Your task to perform on an android device: turn on notifications settings in the gmail app Image 0: 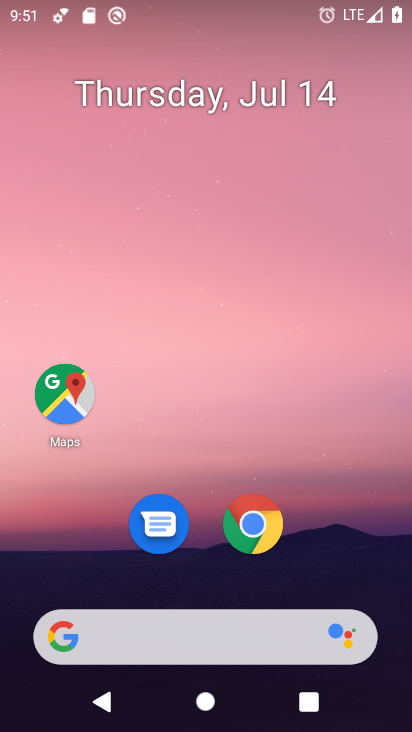
Step 0: drag from (310, 532) to (301, 7)
Your task to perform on an android device: turn on notifications settings in the gmail app Image 1: 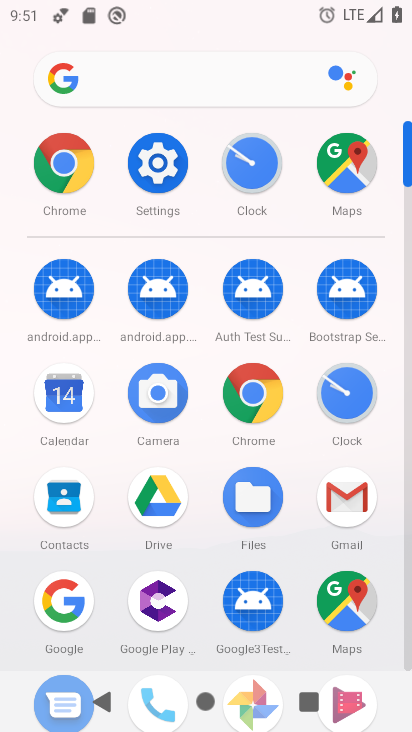
Step 1: click (351, 487)
Your task to perform on an android device: turn on notifications settings in the gmail app Image 2: 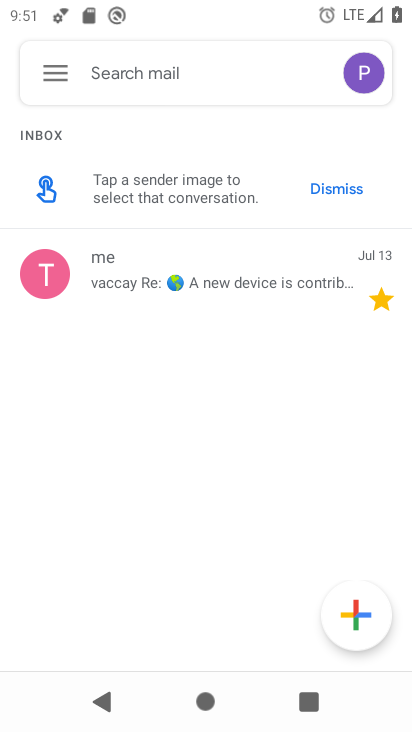
Step 2: click (47, 70)
Your task to perform on an android device: turn on notifications settings in the gmail app Image 3: 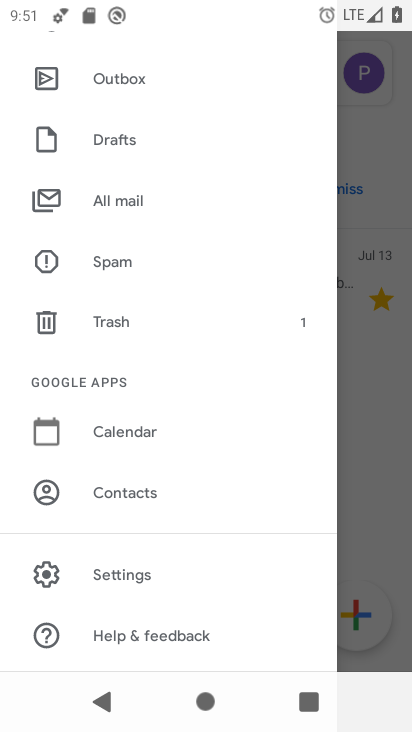
Step 3: drag from (162, 180) to (253, 186)
Your task to perform on an android device: turn on notifications settings in the gmail app Image 4: 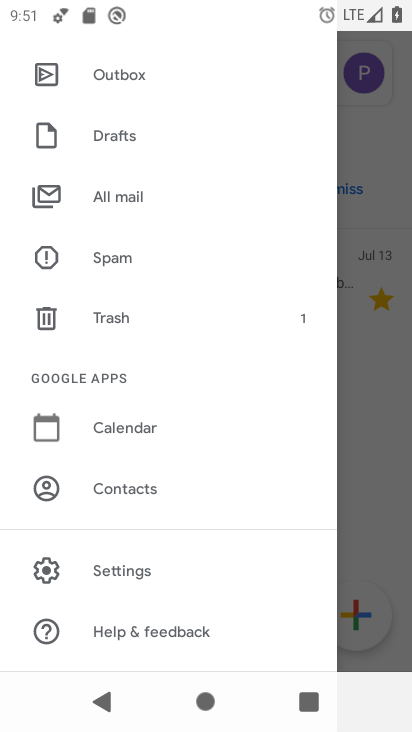
Step 4: click (150, 567)
Your task to perform on an android device: turn on notifications settings in the gmail app Image 5: 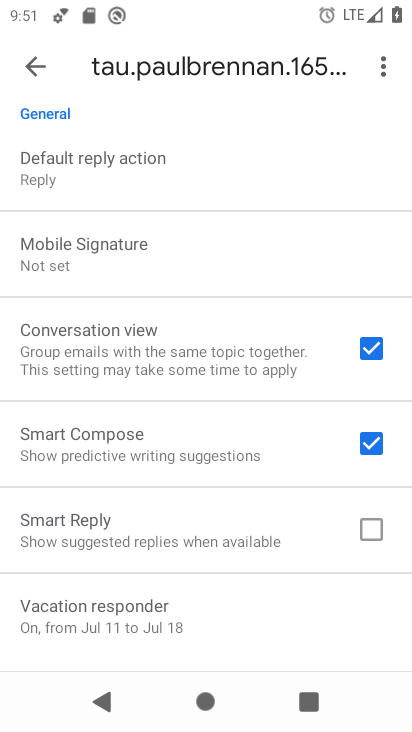
Step 5: drag from (207, 170) to (241, 538)
Your task to perform on an android device: turn on notifications settings in the gmail app Image 6: 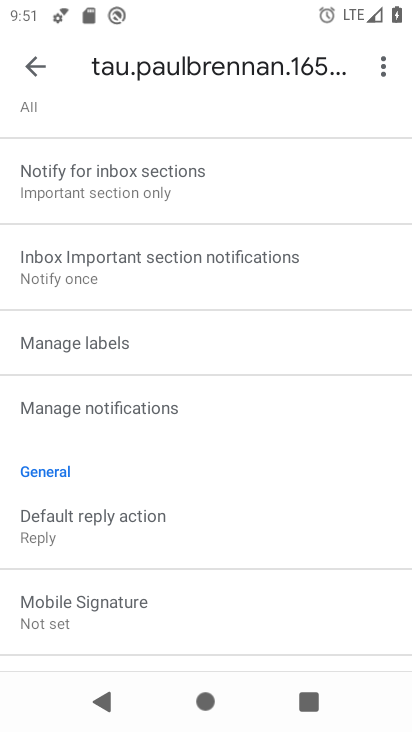
Step 6: click (216, 410)
Your task to perform on an android device: turn on notifications settings in the gmail app Image 7: 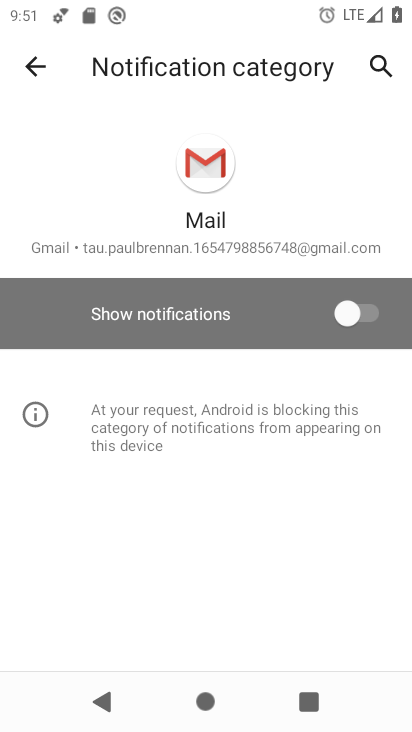
Step 7: click (353, 303)
Your task to perform on an android device: turn on notifications settings in the gmail app Image 8: 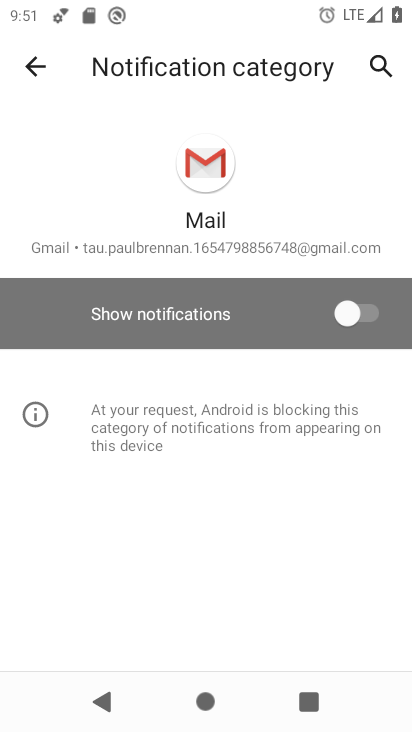
Step 8: click (358, 307)
Your task to perform on an android device: turn on notifications settings in the gmail app Image 9: 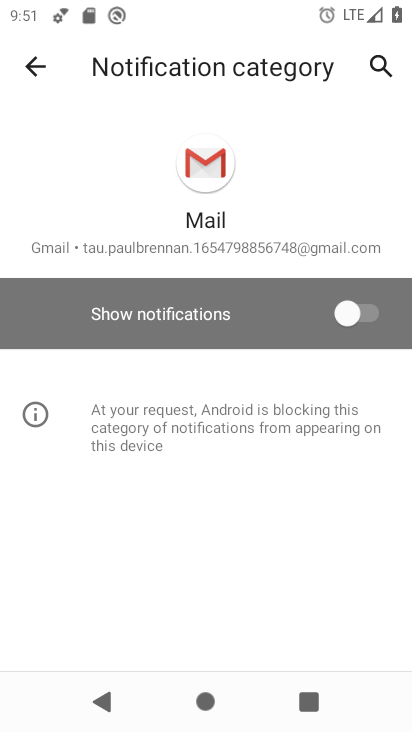
Step 9: click (43, 60)
Your task to perform on an android device: turn on notifications settings in the gmail app Image 10: 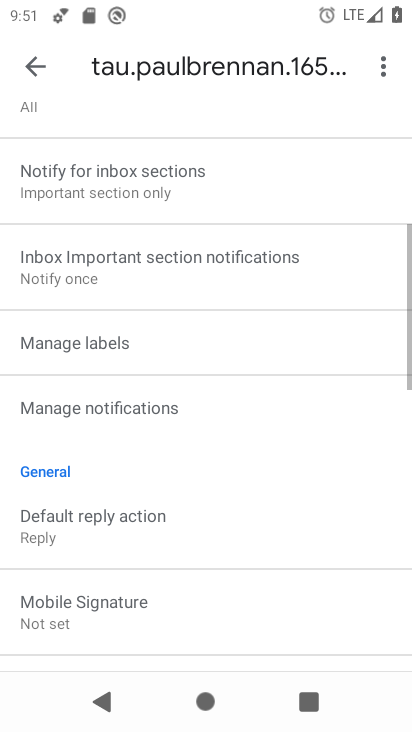
Step 10: click (31, 58)
Your task to perform on an android device: turn on notifications settings in the gmail app Image 11: 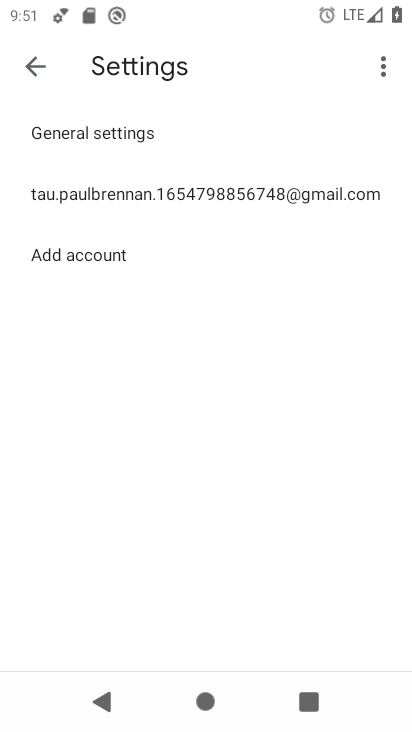
Step 11: click (98, 124)
Your task to perform on an android device: turn on notifications settings in the gmail app Image 12: 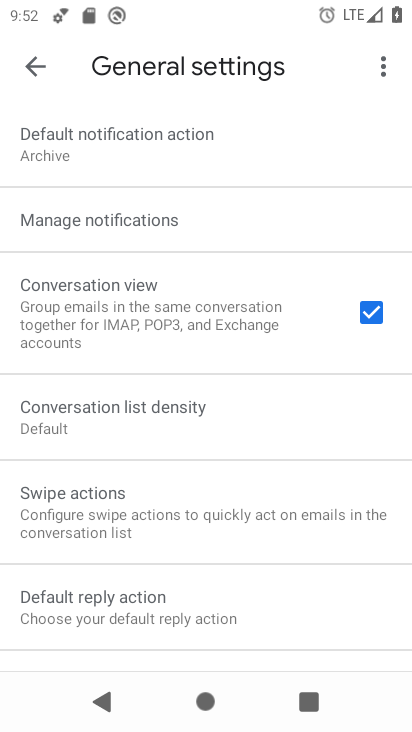
Step 12: click (190, 215)
Your task to perform on an android device: turn on notifications settings in the gmail app Image 13: 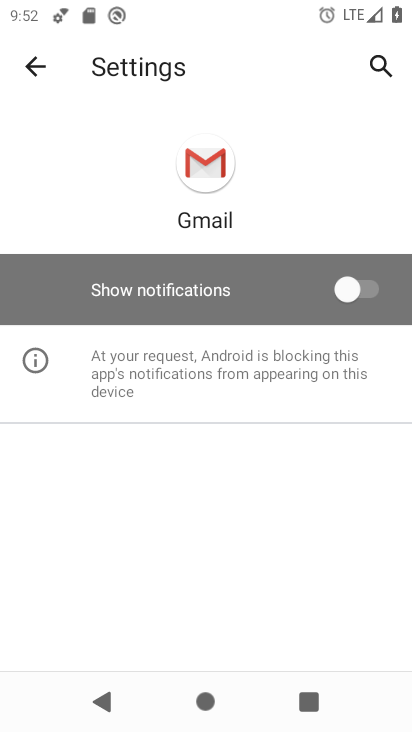
Step 13: click (354, 293)
Your task to perform on an android device: turn on notifications settings in the gmail app Image 14: 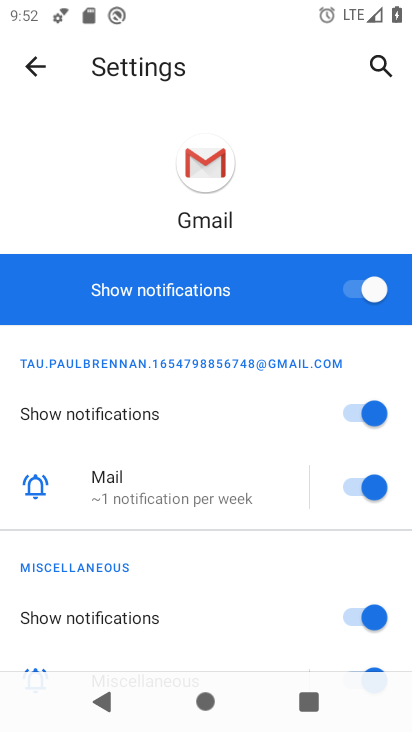
Step 14: task complete